Your task to perform on an android device: turn off javascript in the chrome app Image 0: 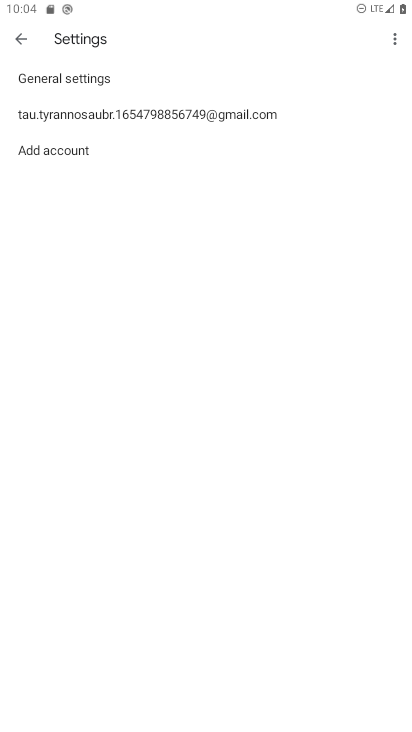
Step 0: press home button
Your task to perform on an android device: turn off javascript in the chrome app Image 1: 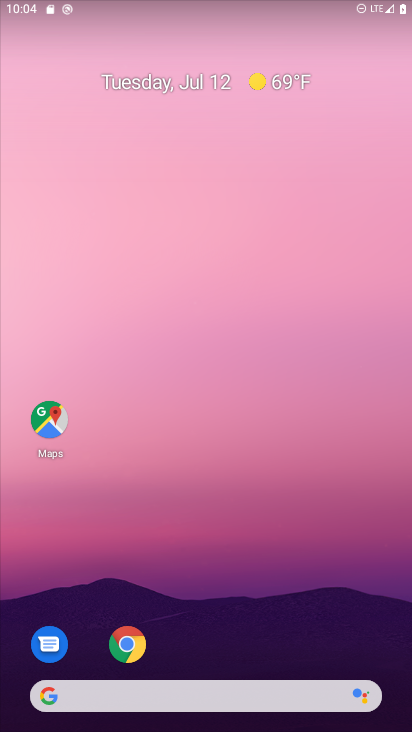
Step 1: click (128, 638)
Your task to perform on an android device: turn off javascript in the chrome app Image 2: 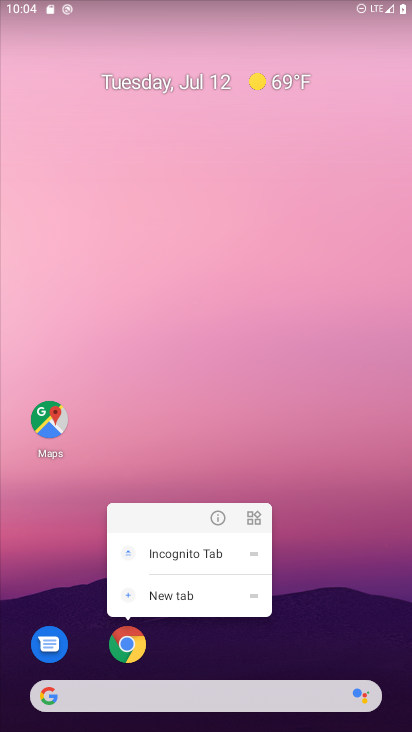
Step 2: click (127, 641)
Your task to perform on an android device: turn off javascript in the chrome app Image 3: 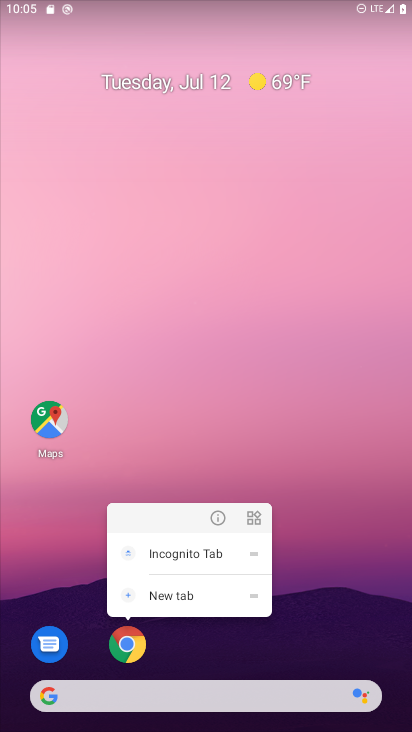
Step 3: click (135, 644)
Your task to perform on an android device: turn off javascript in the chrome app Image 4: 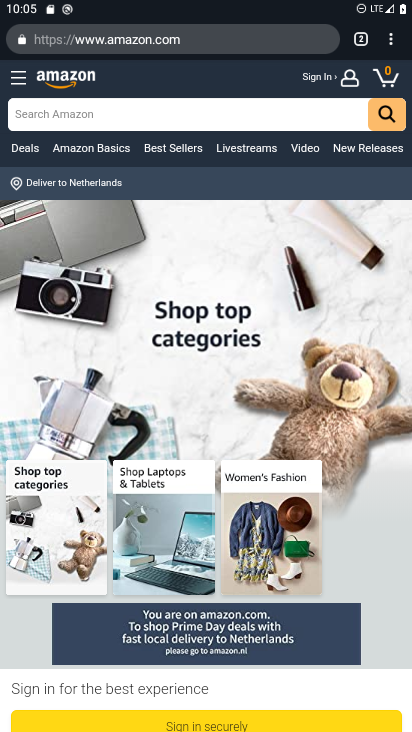
Step 4: click (392, 42)
Your task to perform on an android device: turn off javascript in the chrome app Image 5: 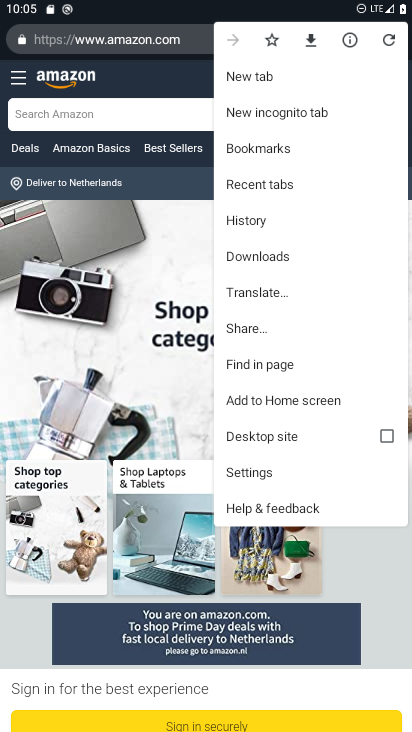
Step 5: click (272, 467)
Your task to perform on an android device: turn off javascript in the chrome app Image 6: 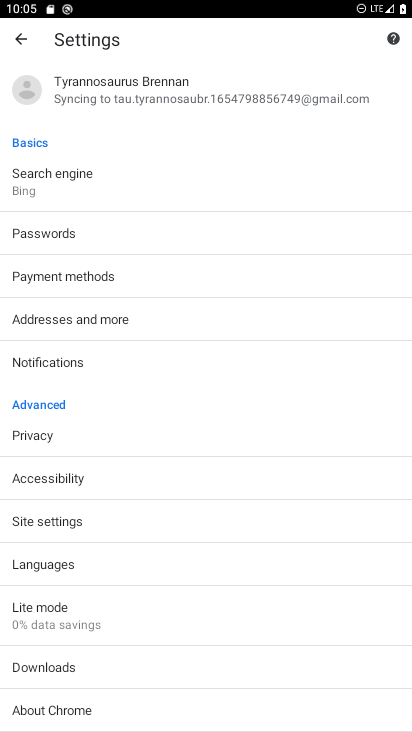
Step 6: click (99, 519)
Your task to perform on an android device: turn off javascript in the chrome app Image 7: 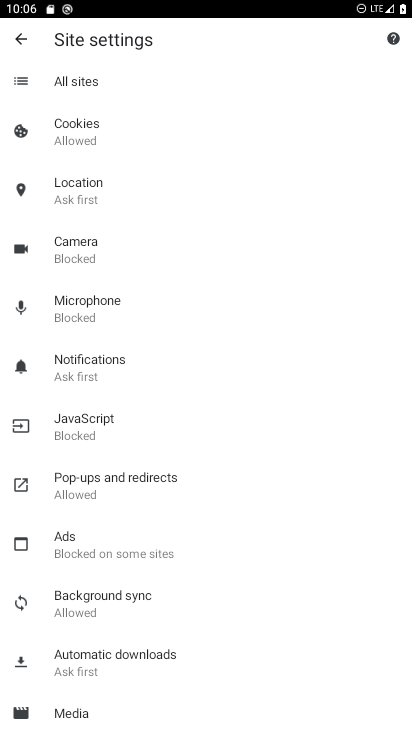
Step 7: click (121, 433)
Your task to perform on an android device: turn off javascript in the chrome app Image 8: 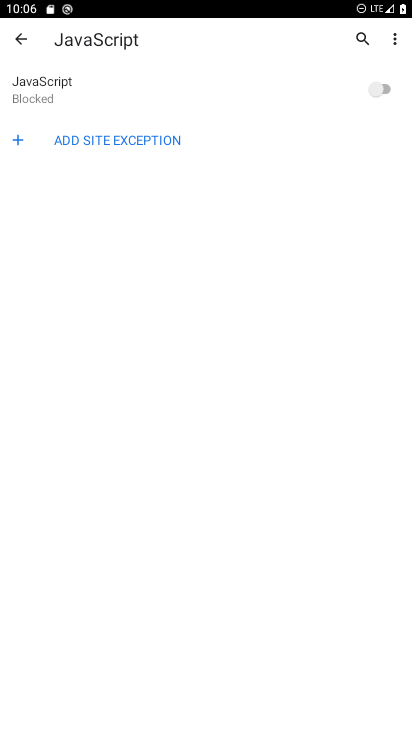
Step 8: click (380, 79)
Your task to perform on an android device: turn off javascript in the chrome app Image 9: 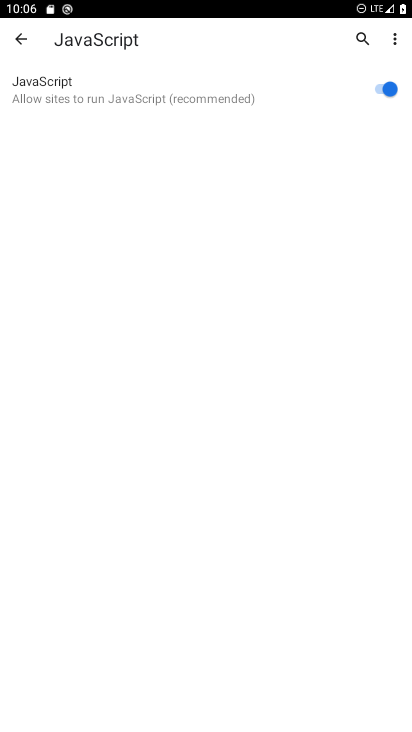
Step 9: task complete